Your task to perform on an android device: Do I have any events today? Image 0: 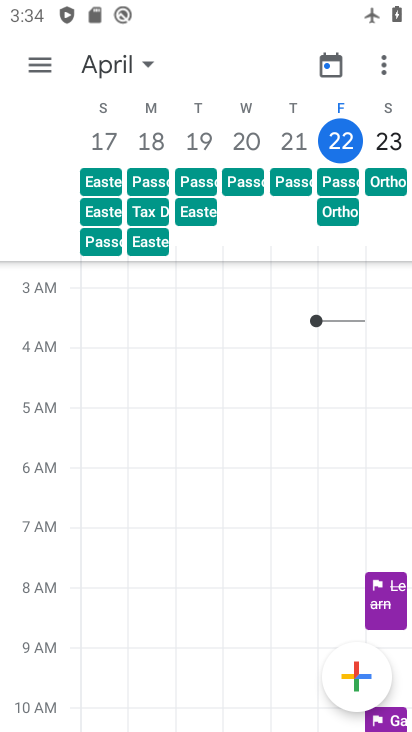
Step 0: click (138, 65)
Your task to perform on an android device: Do I have any events today? Image 1: 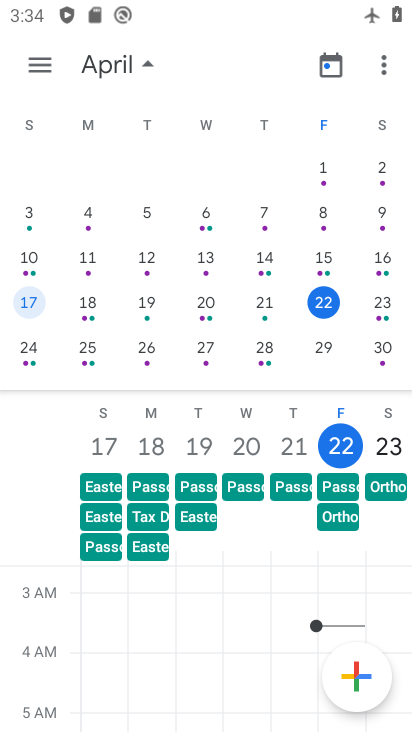
Step 1: click (47, 69)
Your task to perform on an android device: Do I have any events today? Image 2: 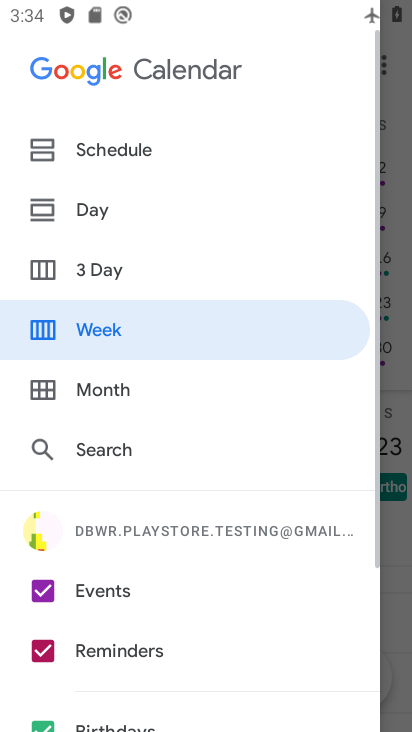
Step 2: click (102, 151)
Your task to perform on an android device: Do I have any events today? Image 3: 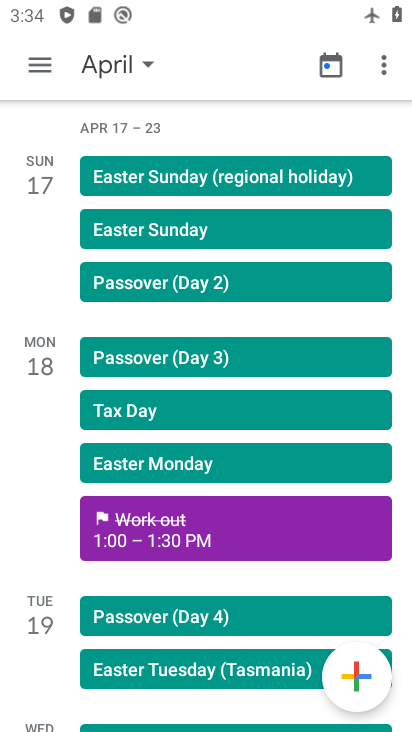
Step 3: task complete